Your task to perform on an android device: turn on showing notifications on the lock screen Image 0: 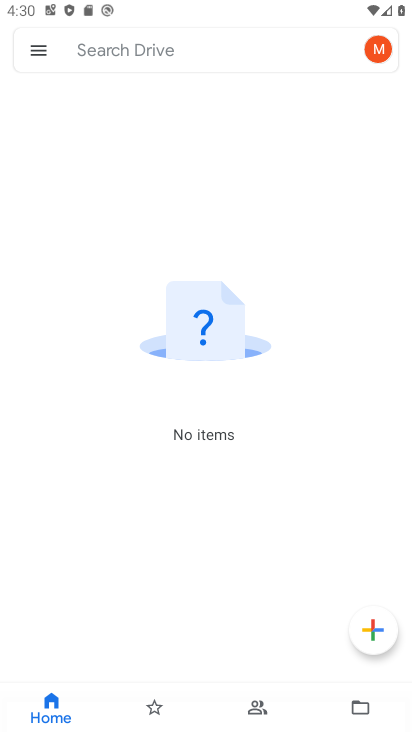
Step 0: press home button
Your task to perform on an android device: turn on showing notifications on the lock screen Image 1: 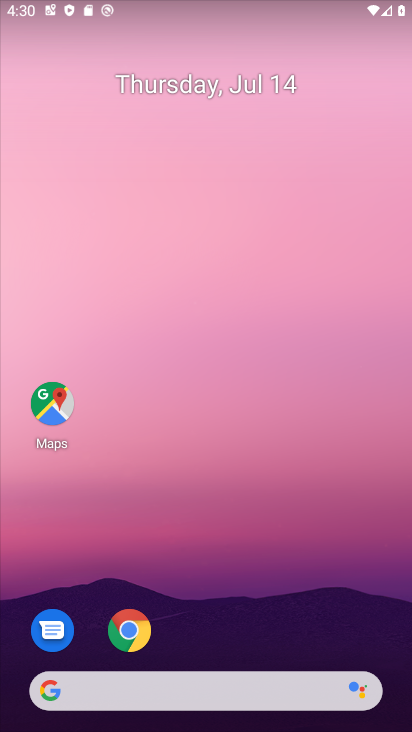
Step 1: drag from (192, 600) to (151, 100)
Your task to perform on an android device: turn on showing notifications on the lock screen Image 2: 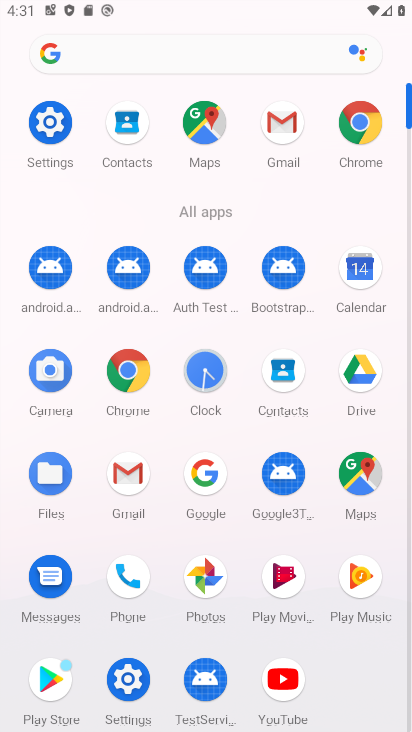
Step 2: click (32, 133)
Your task to perform on an android device: turn on showing notifications on the lock screen Image 3: 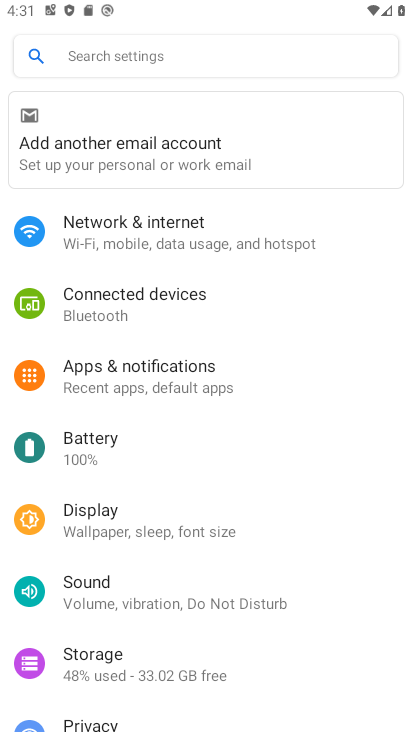
Step 3: click (129, 362)
Your task to perform on an android device: turn on showing notifications on the lock screen Image 4: 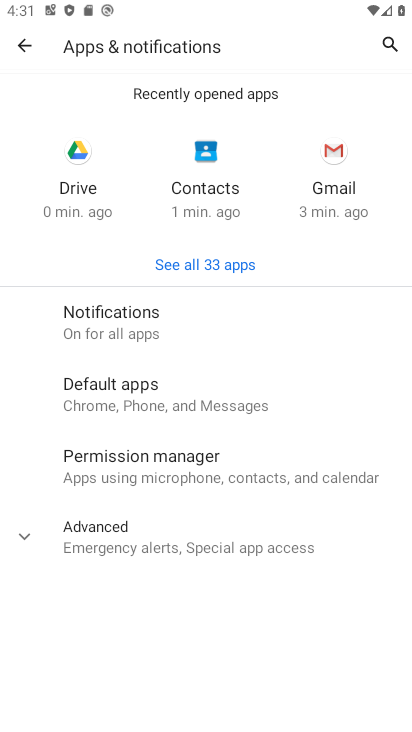
Step 4: click (173, 333)
Your task to perform on an android device: turn on showing notifications on the lock screen Image 5: 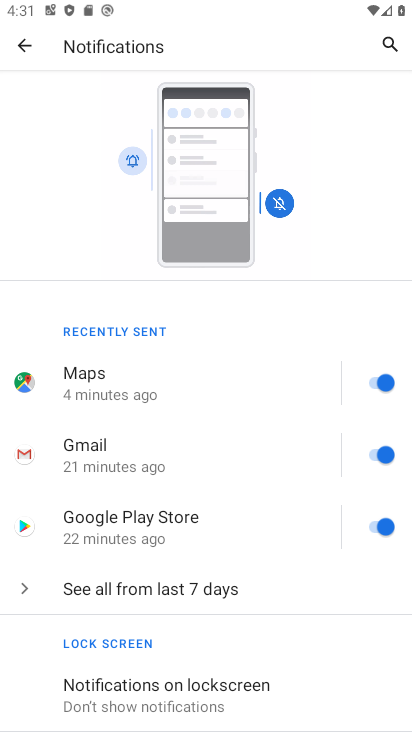
Step 5: click (236, 321)
Your task to perform on an android device: turn on showing notifications on the lock screen Image 6: 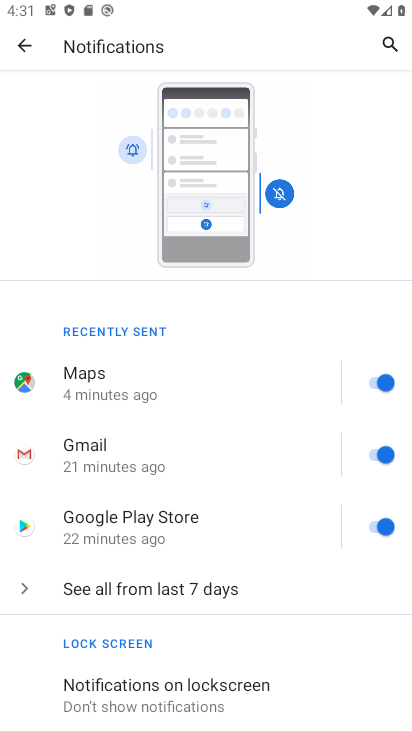
Step 6: click (244, 694)
Your task to perform on an android device: turn on showing notifications on the lock screen Image 7: 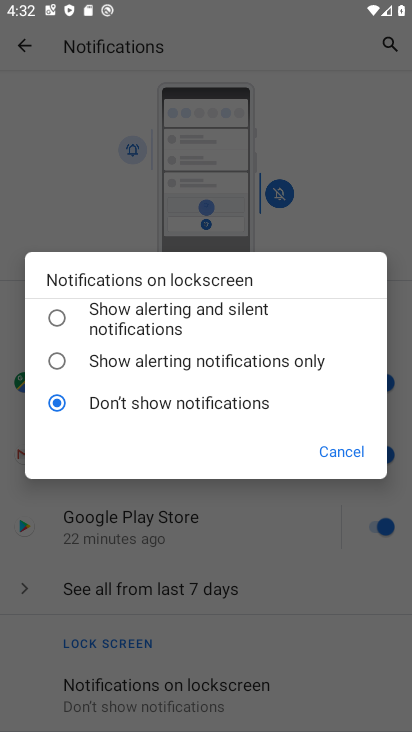
Step 7: click (182, 322)
Your task to perform on an android device: turn on showing notifications on the lock screen Image 8: 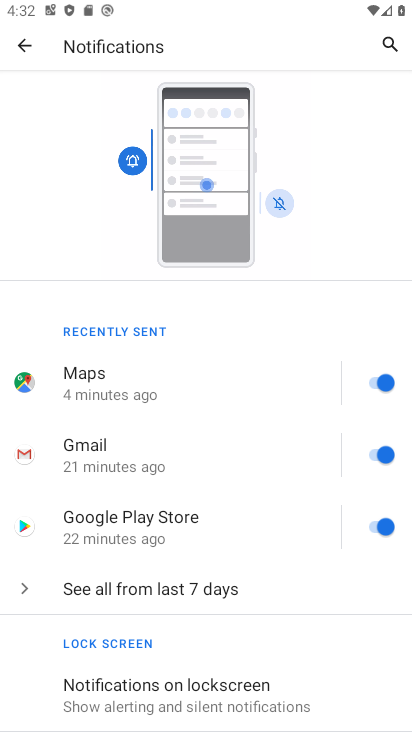
Step 8: task complete